Your task to perform on an android device: turn notification dots off Image 0: 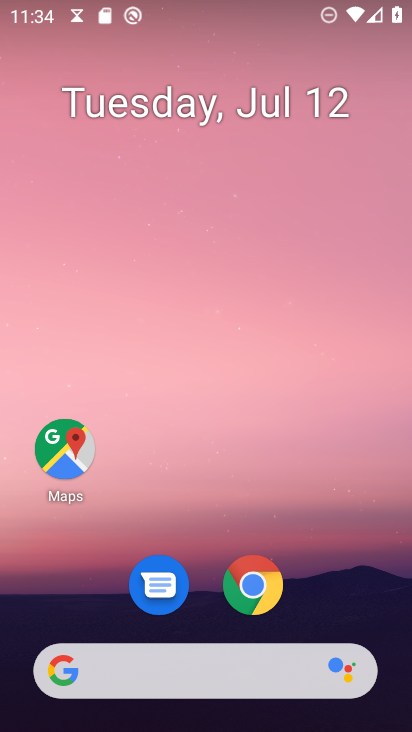
Step 0: drag from (160, 602) to (302, 84)
Your task to perform on an android device: turn notification dots off Image 1: 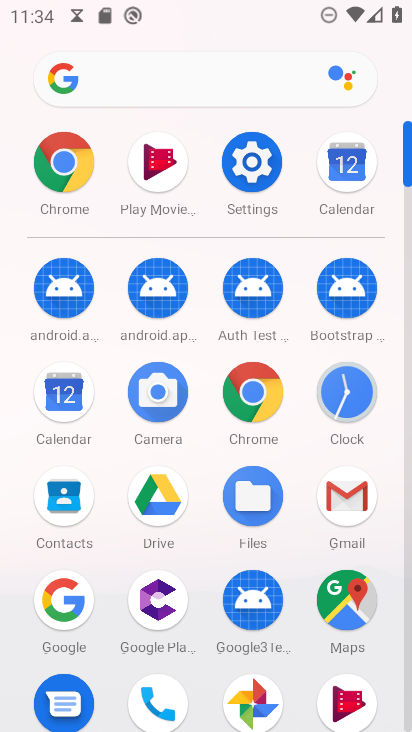
Step 1: click (261, 162)
Your task to perform on an android device: turn notification dots off Image 2: 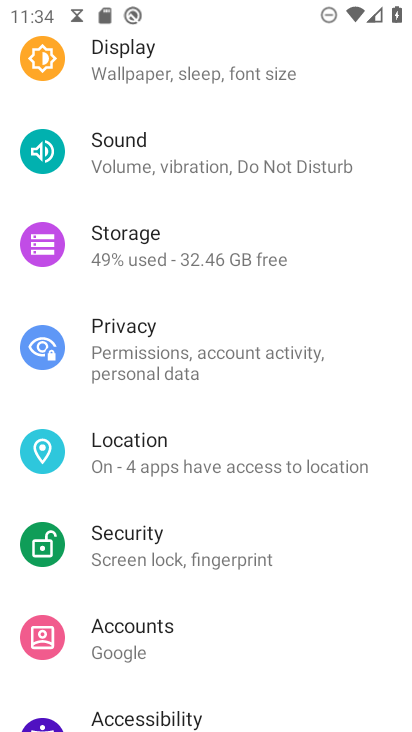
Step 2: drag from (278, 128) to (249, 567)
Your task to perform on an android device: turn notification dots off Image 3: 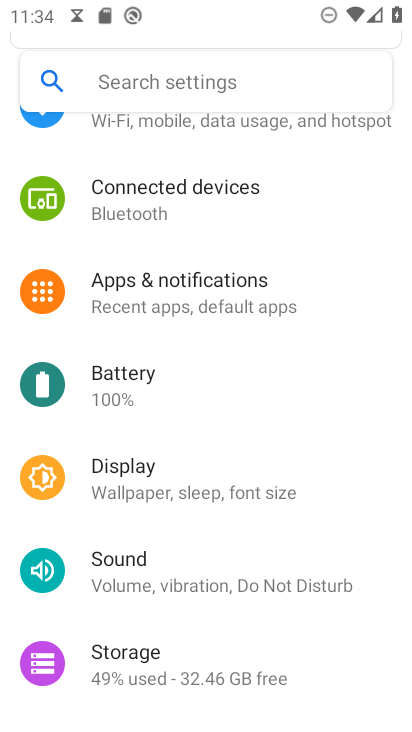
Step 3: click (187, 290)
Your task to perform on an android device: turn notification dots off Image 4: 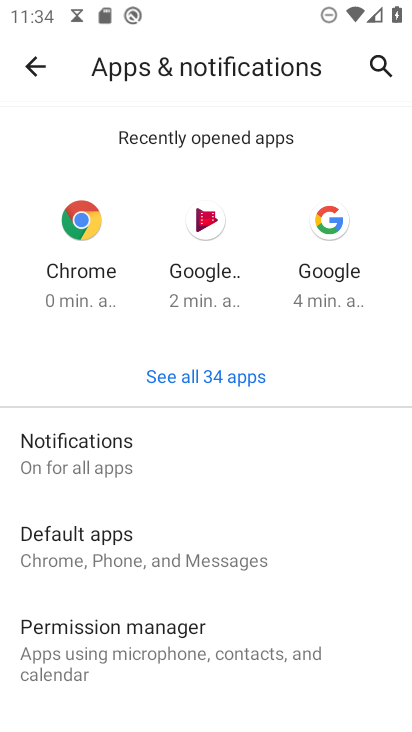
Step 4: click (114, 462)
Your task to perform on an android device: turn notification dots off Image 5: 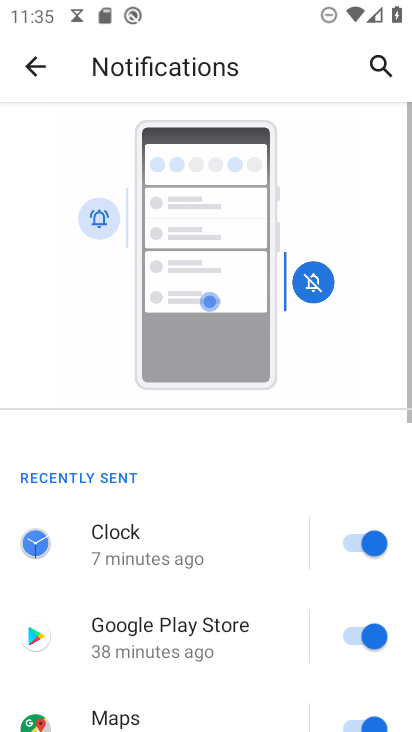
Step 5: drag from (159, 678) to (267, 62)
Your task to perform on an android device: turn notification dots off Image 6: 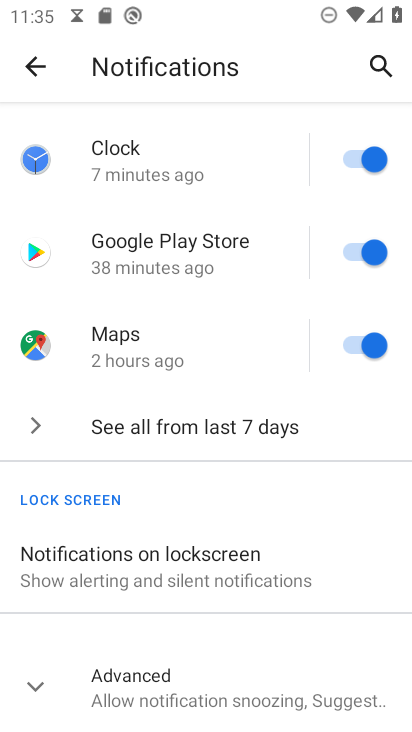
Step 6: click (139, 673)
Your task to perform on an android device: turn notification dots off Image 7: 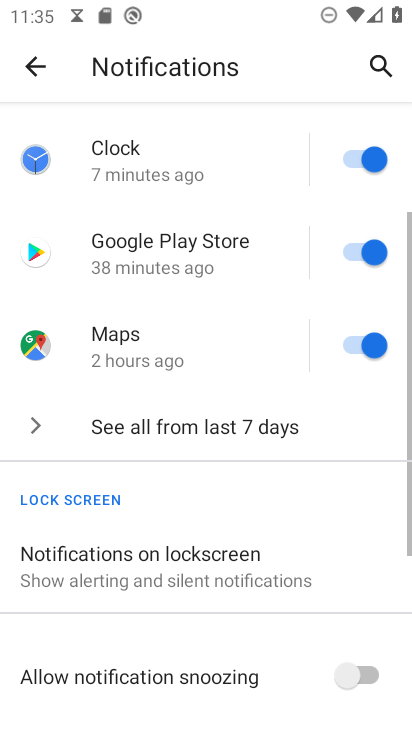
Step 7: drag from (183, 611) to (306, 91)
Your task to perform on an android device: turn notification dots off Image 8: 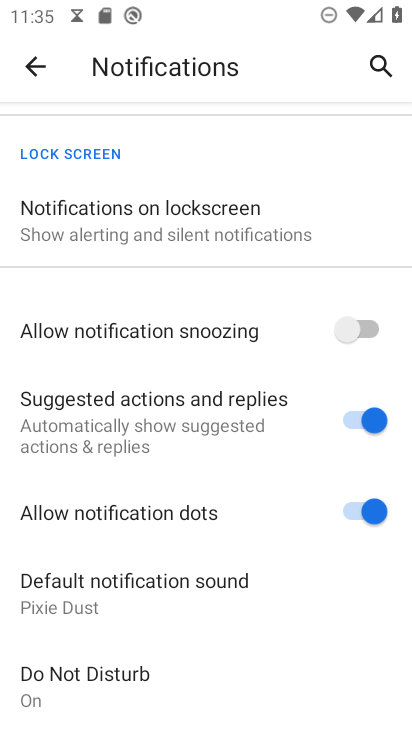
Step 8: click (353, 512)
Your task to perform on an android device: turn notification dots off Image 9: 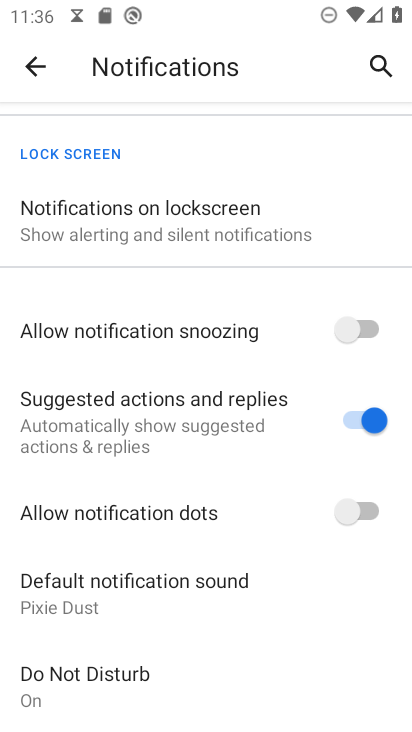
Step 9: task complete